Your task to perform on an android device: turn on airplane mode Image 0: 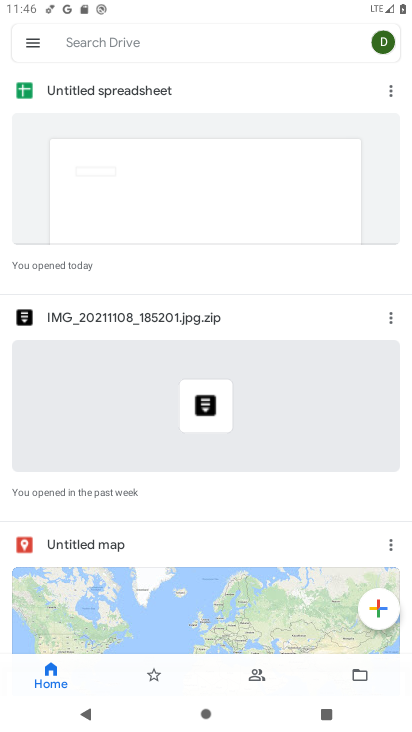
Step 0: press home button
Your task to perform on an android device: turn on airplane mode Image 1: 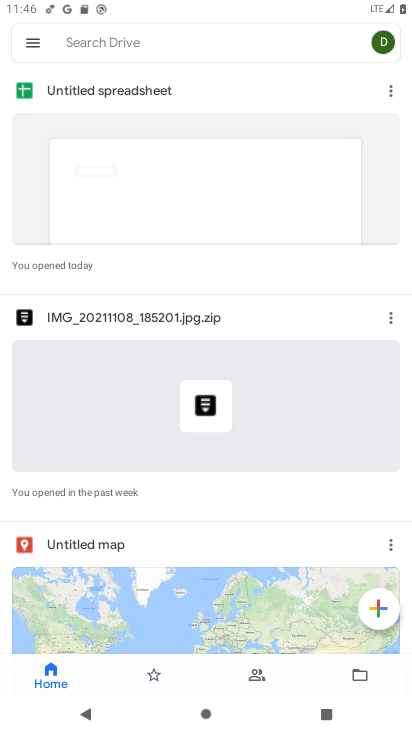
Step 1: press home button
Your task to perform on an android device: turn on airplane mode Image 2: 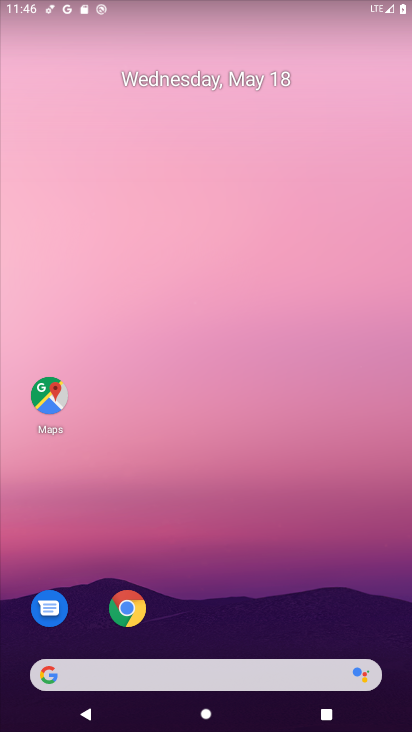
Step 2: drag from (192, 588) to (127, 83)
Your task to perform on an android device: turn on airplane mode Image 3: 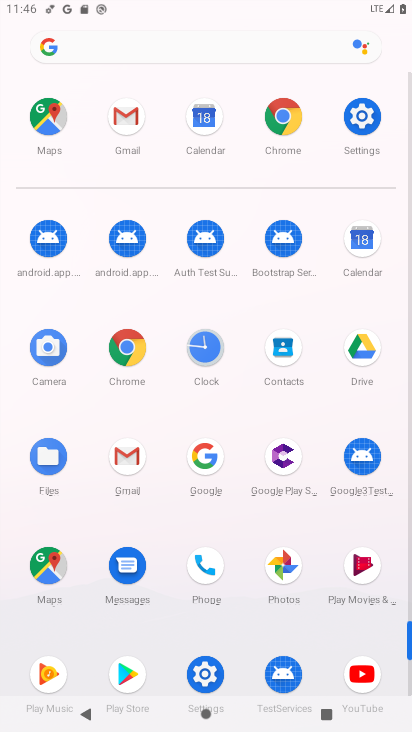
Step 3: click (370, 122)
Your task to perform on an android device: turn on airplane mode Image 4: 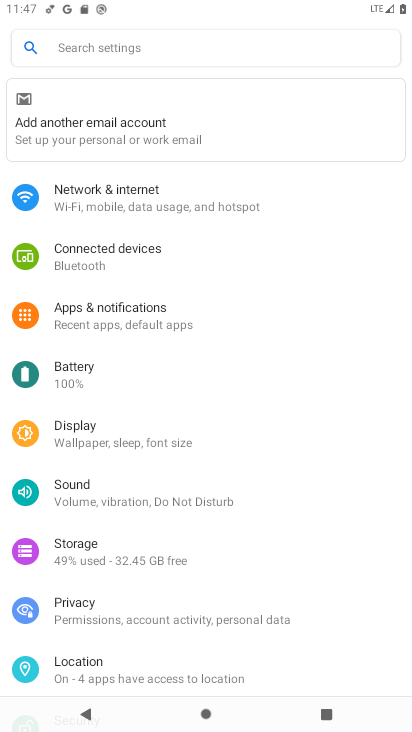
Step 4: click (135, 208)
Your task to perform on an android device: turn on airplane mode Image 5: 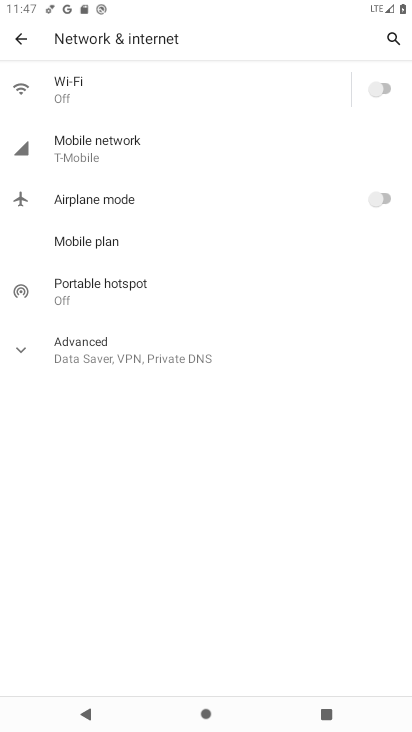
Step 5: click (377, 197)
Your task to perform on an android device: turn on airplane mode Image 6: 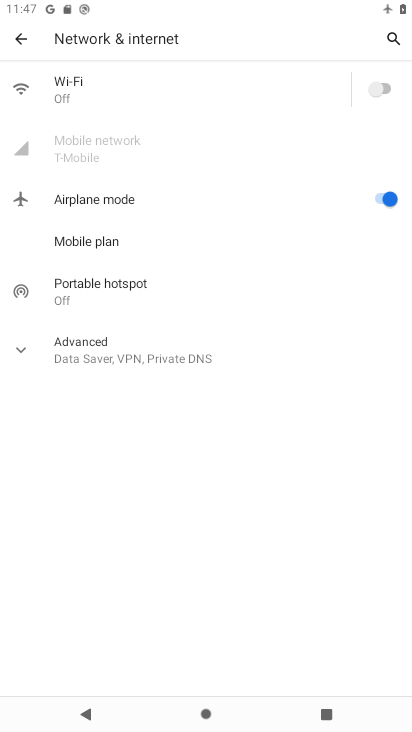
Step 6: task complete